Your task to perform on an android device: When is my next appointment? Image 0: 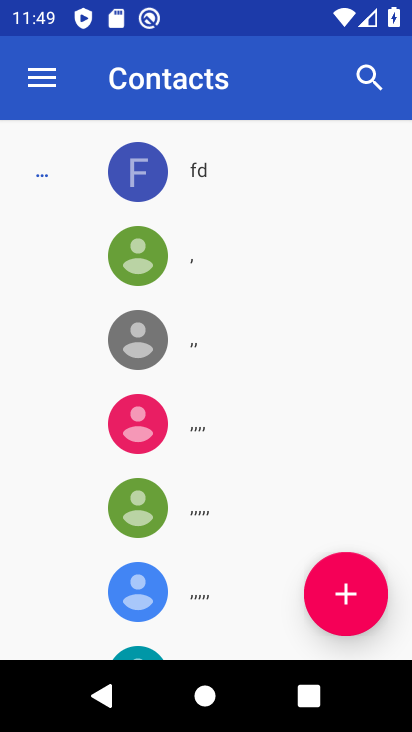
Step 0: press home button
Your task to perform on an android device: When is my next appointment? Image 1: 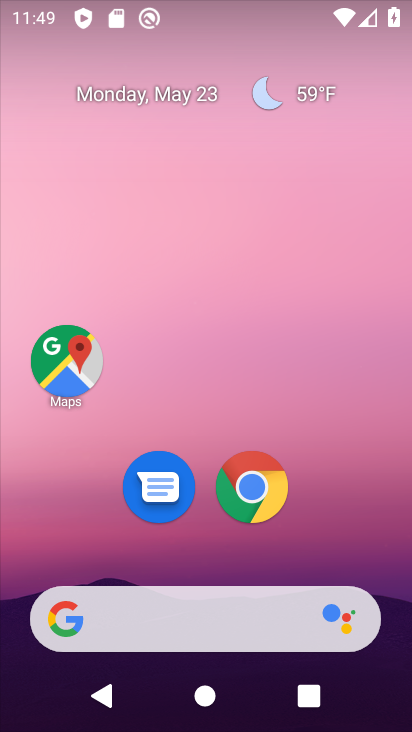
Step 1: drag from (189, 548) to (181, 45)
Your task to perform on an android device: When is my next appointment? Image 2: 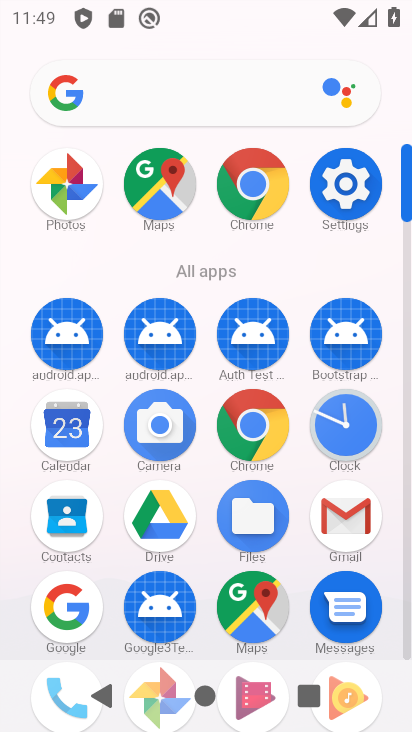
Step 2: click (51, 432)
Your task to perform on an android device: When is my next appointment? Image 3: 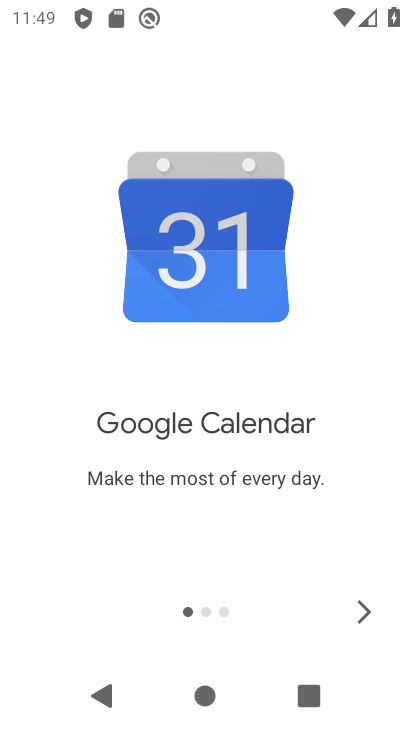
Step 3: click (370, 619)
Your task to perform on an android device: When is my next appointment? Image 4: 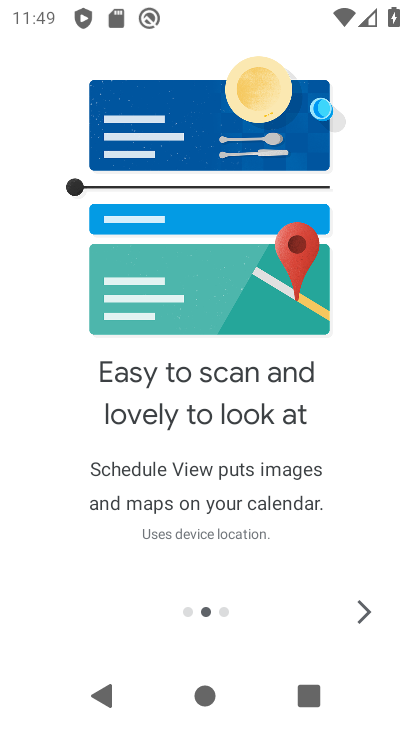
Step 4: click (358, 608)
Your task to perform on an android device: When is my next appointment? Image 5: 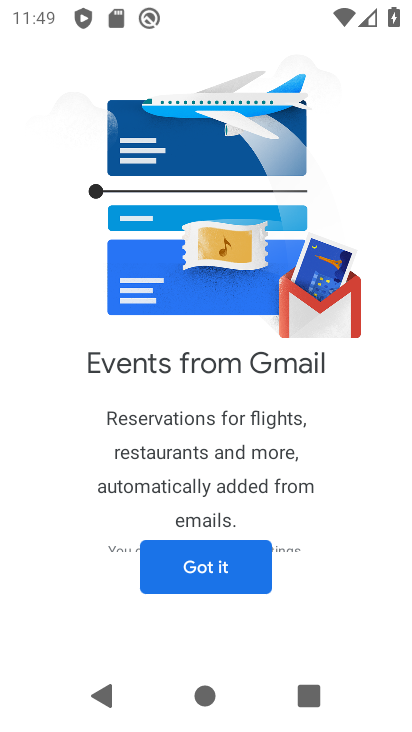
Step 5: click (164, 569)
Your task to perform on an android device: When is my next appointment? Image 6: 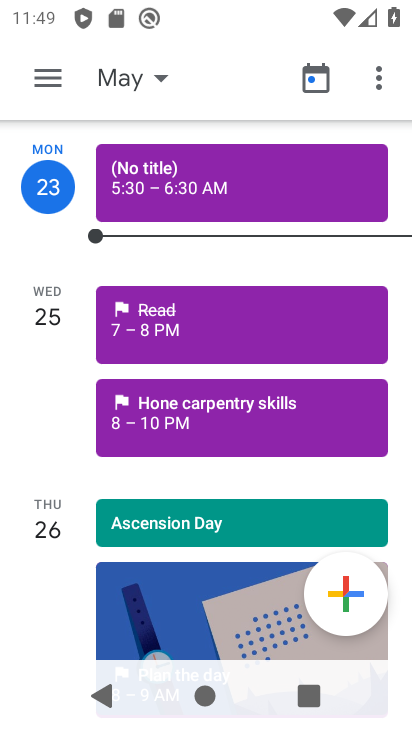
Step 6: click (134, 70)
Your task to perform on an android device: When is my next appointment? Image 7: 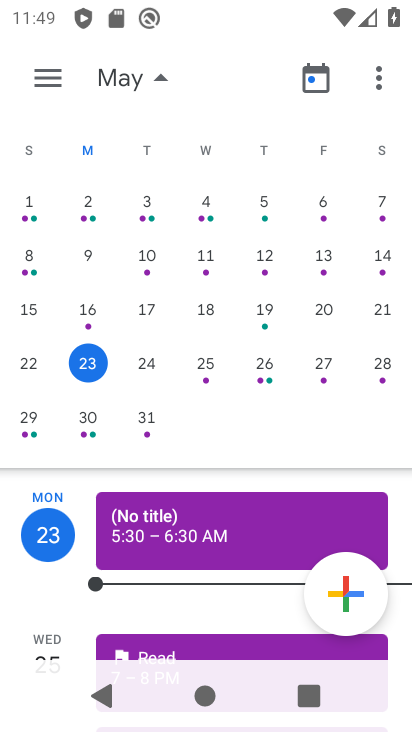
Step 7: click (90, 359)
Your task to perform on an android device: When is my next appointment? Image 8: 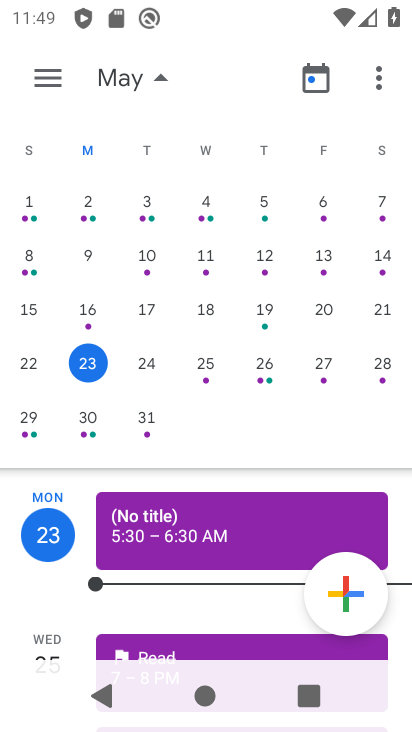
Step 8: task complete